Your task to perform on an android device: Check the latest 3D printers on Target. Image 0: 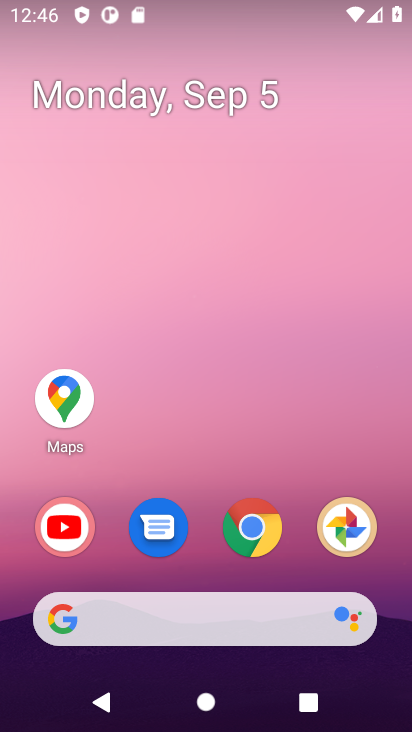
Step 0: click (259, 522)
Your task to perform on an android device: Check the latest 3D printers on Target. Image 1: 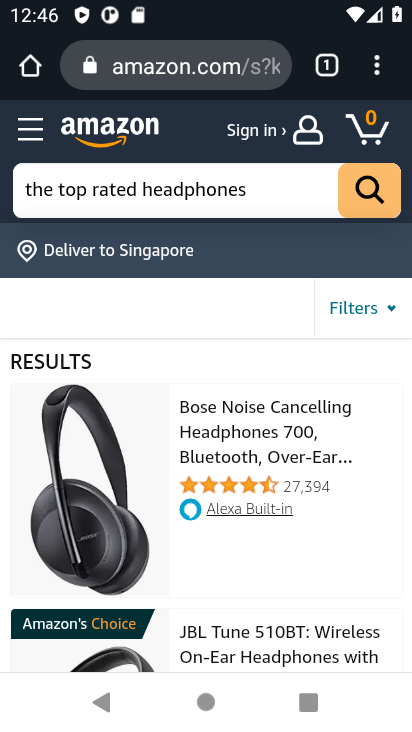
Step 1: click (159, 71)
Your task to perform on an android device: Check the latest 3D printers on Target. Image 2: 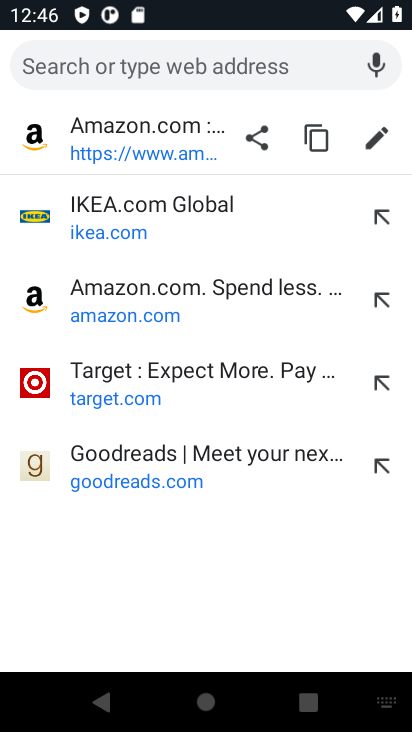
Step 2: type "target"
Your task to perform on an android device: Check the latest 3D printers on Target. Image 3: 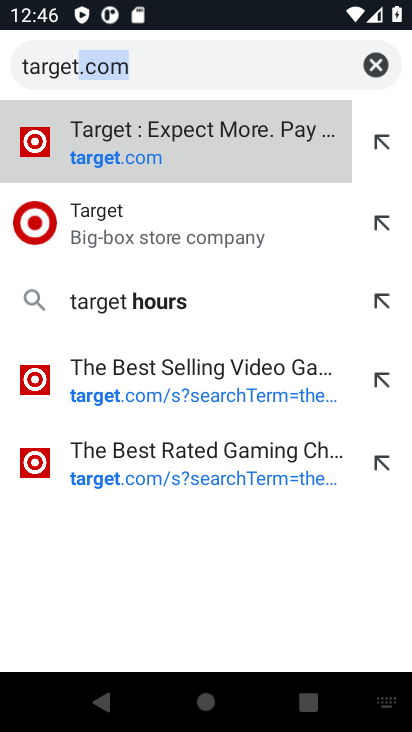
Step 3: click (175, 145)
Your task to perform on an android device: Check the latest 3D printers on Target. Image 4: 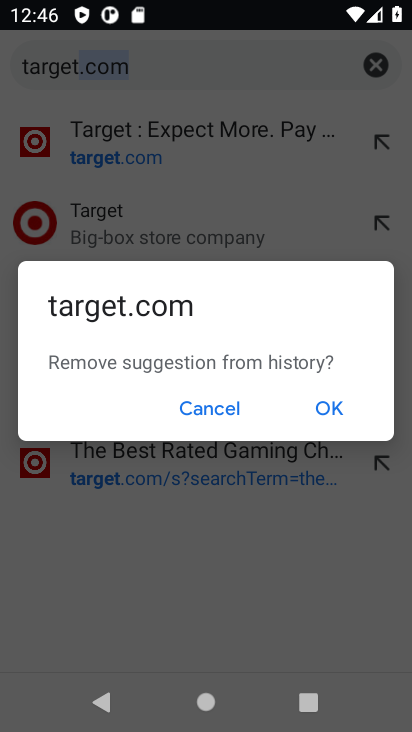
Step 4: click (237, 405)
Your task to perform on an android device: Check the latest 3D printers on Target. Image 5: 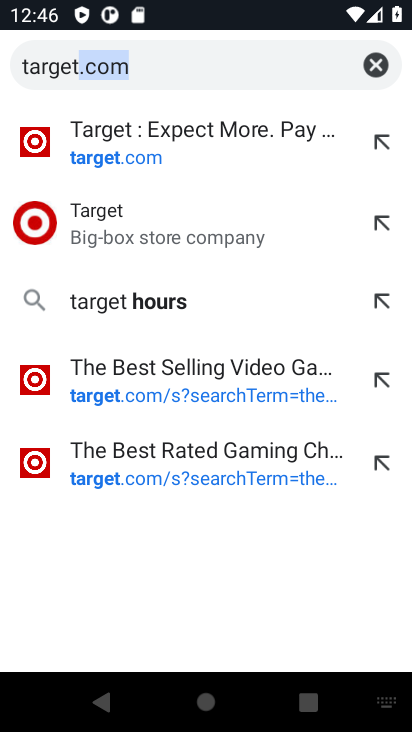
Step 5: click (155, 132)
Your task to perform on an android device: Check the latest 3D printers on Target. Image 6: 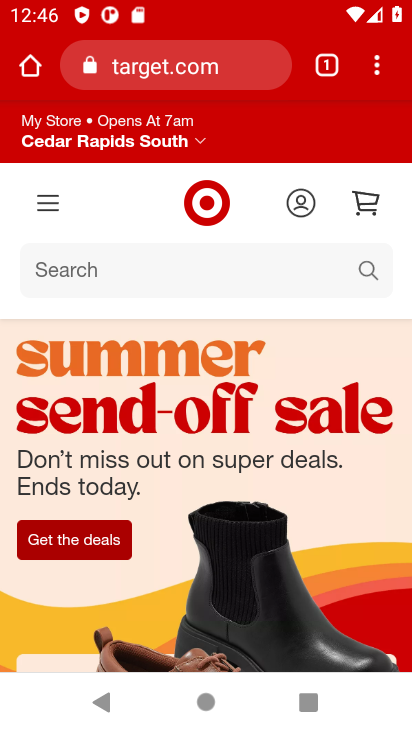
Step 6: click (189, 272)
Your task to perform on an android device: Check the latest 3D printers on Target. Image 7: 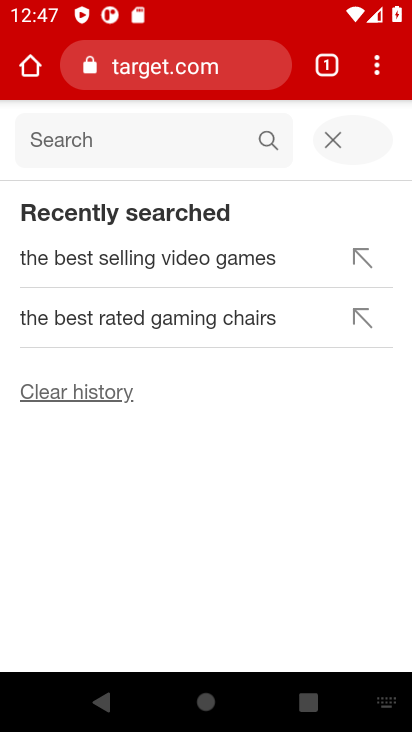
Step 7: type "the latest 3D printers"
Your task to perform on an android device: Check the latest 3D printers on Target. Image 8: 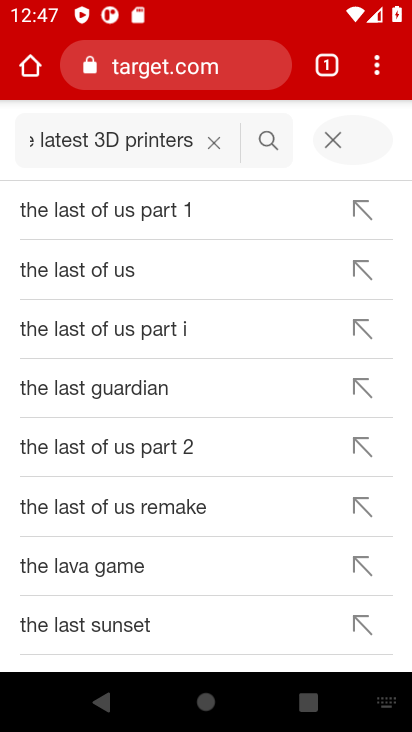
Step 8: click (288, 145)
Your task to perform on an android device: Check the latest 3D printers on Target. Image 9: 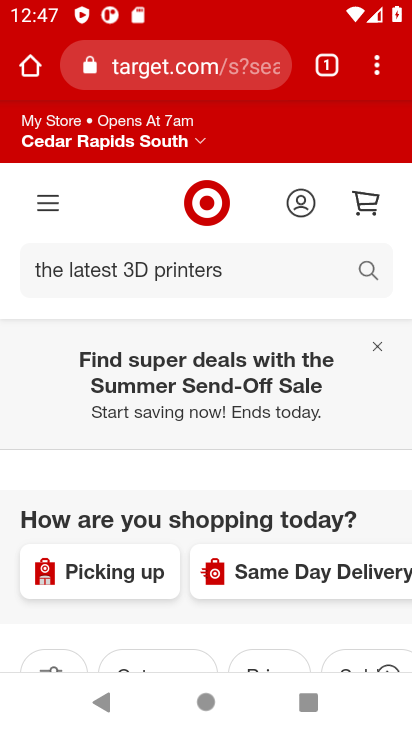
Step 9: task complete